Your task to perform on an android device: Open notification settings Image 0: 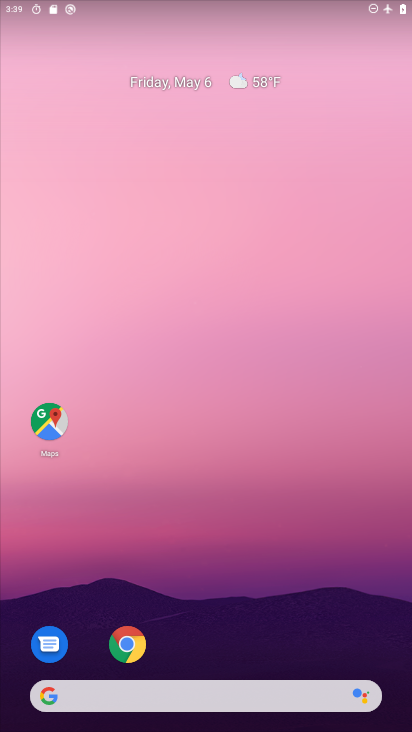
Step 0: drag from (211, 730) to (210, 158)
Your task to perform on an android device: Open notification settings Image 1: 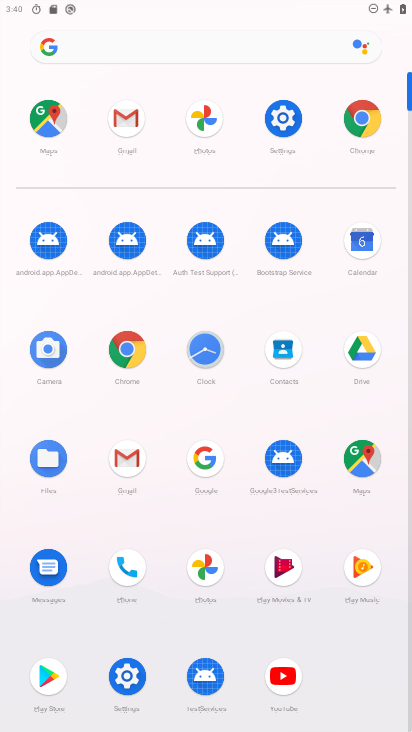
Step 1: click (281, 110)
Your task to perform on an android device: Open notification settings Image 2: 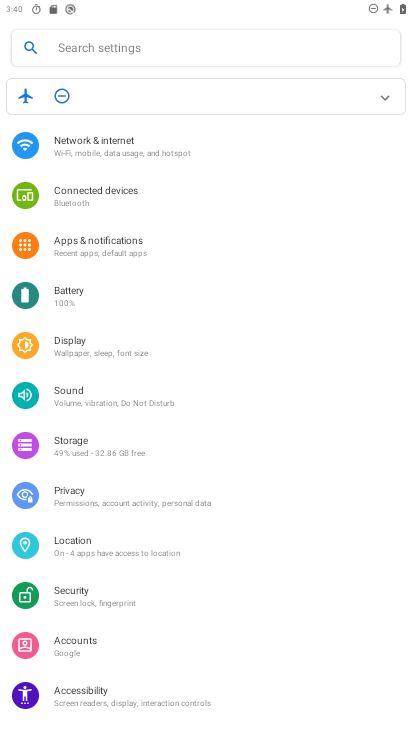
Step 2: click (73, 249)
Your task to perform on an android device: Open notification settings Image 3: 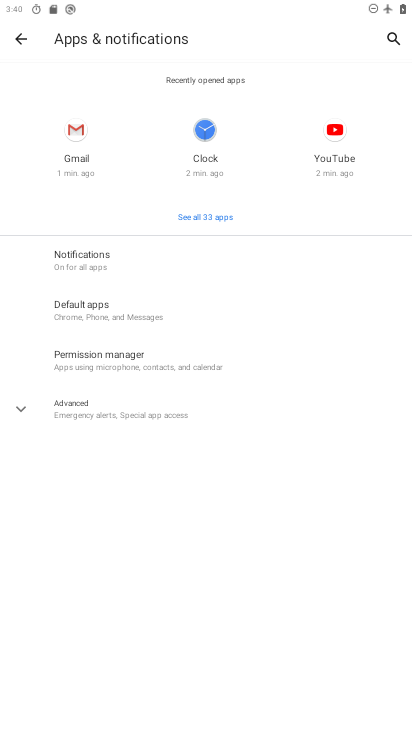
Step 3: click (84, 258)
Your task to perform on an android device: Open notification settings Image 4: 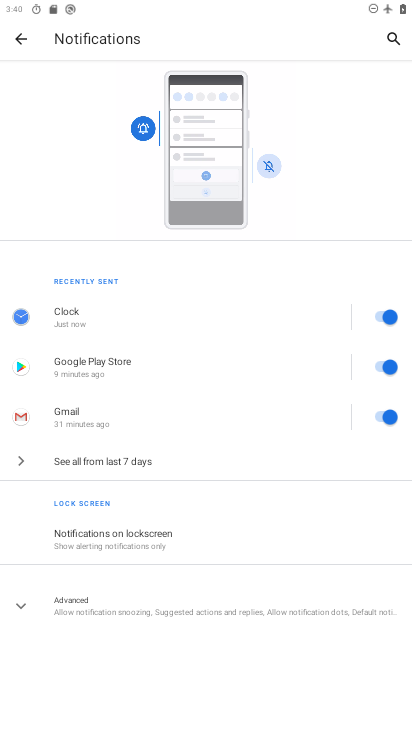
Step 4: task complete